Your task to perform on an android device: Go to location settings Image 0: 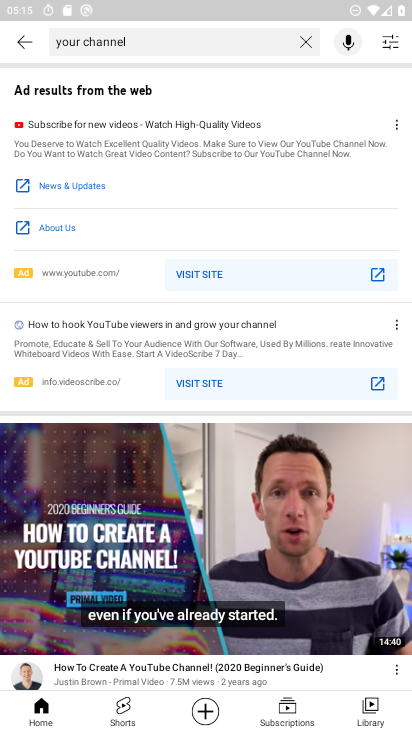
Step 0: press home button
Your task to perform on an android device: Go to location settings Image 1: 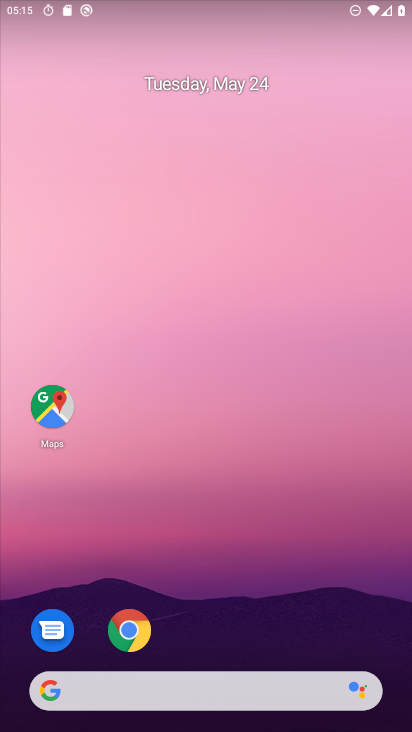
Step 1: drag from (259, 641) to (273, 68)
Your task to perform on an android device: Go to location settings Image 2: 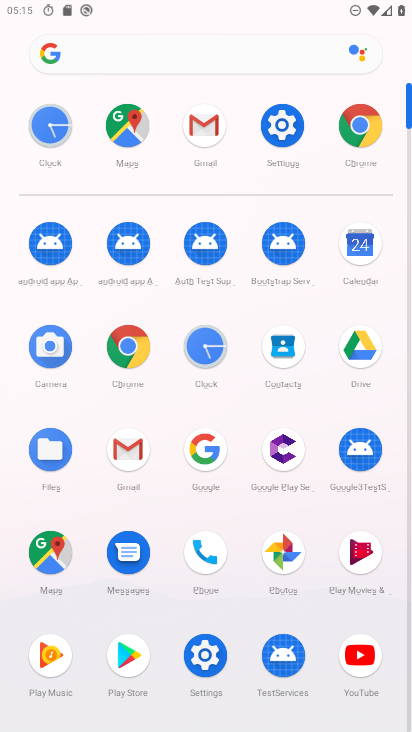
Step 2: click (279, 121)
Your task to perform on an android device: Go to location settings Image 3: 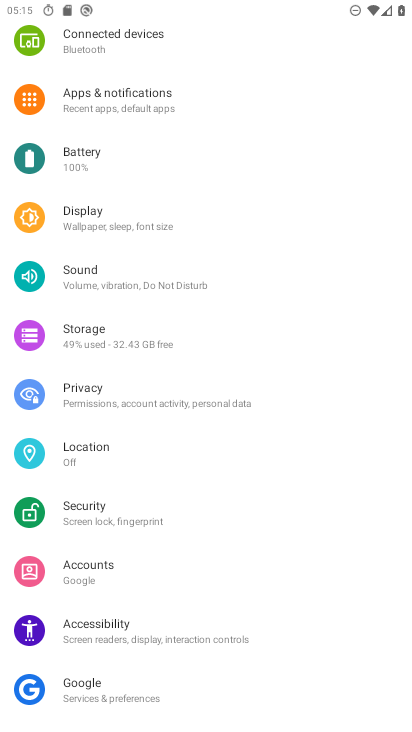
Step 3: click (77, 455)
Your task to perform on an android device: Go to location settings Image 4: 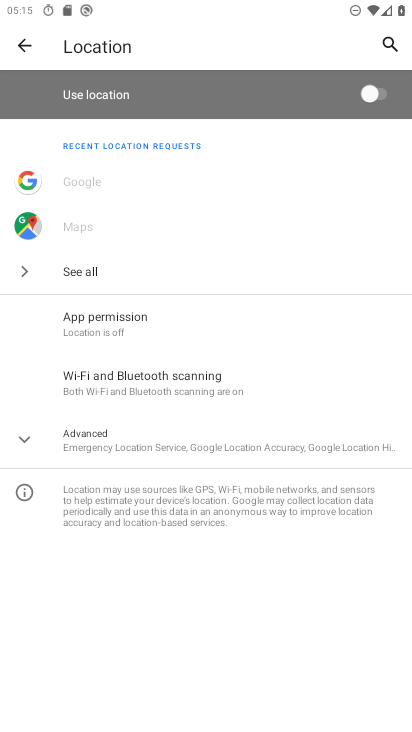
Step 4: task complete